Your task to perform on an android device: Empty the shopping cart on bestbuy.com. Search for sony triple a on bestbuy.com, select the first entry, add it to the cart, then select checkout. Image 0: 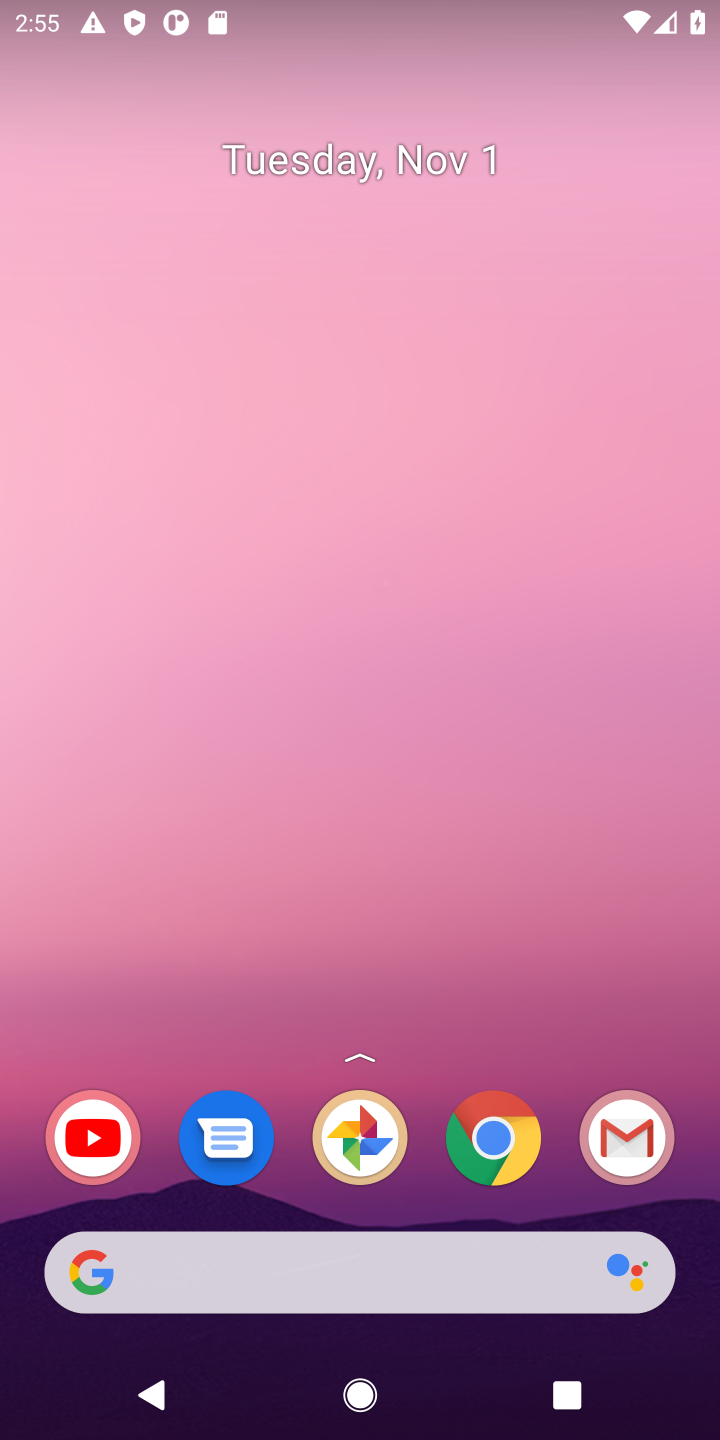
Step 0: click (507, 1150)
Your task to perform on an android device: Empty the shopping cart on bestbuy.com. Search for sony triple a on bestbuy.com, select the first entry, add it to the cart, then select checkout. Image 1: 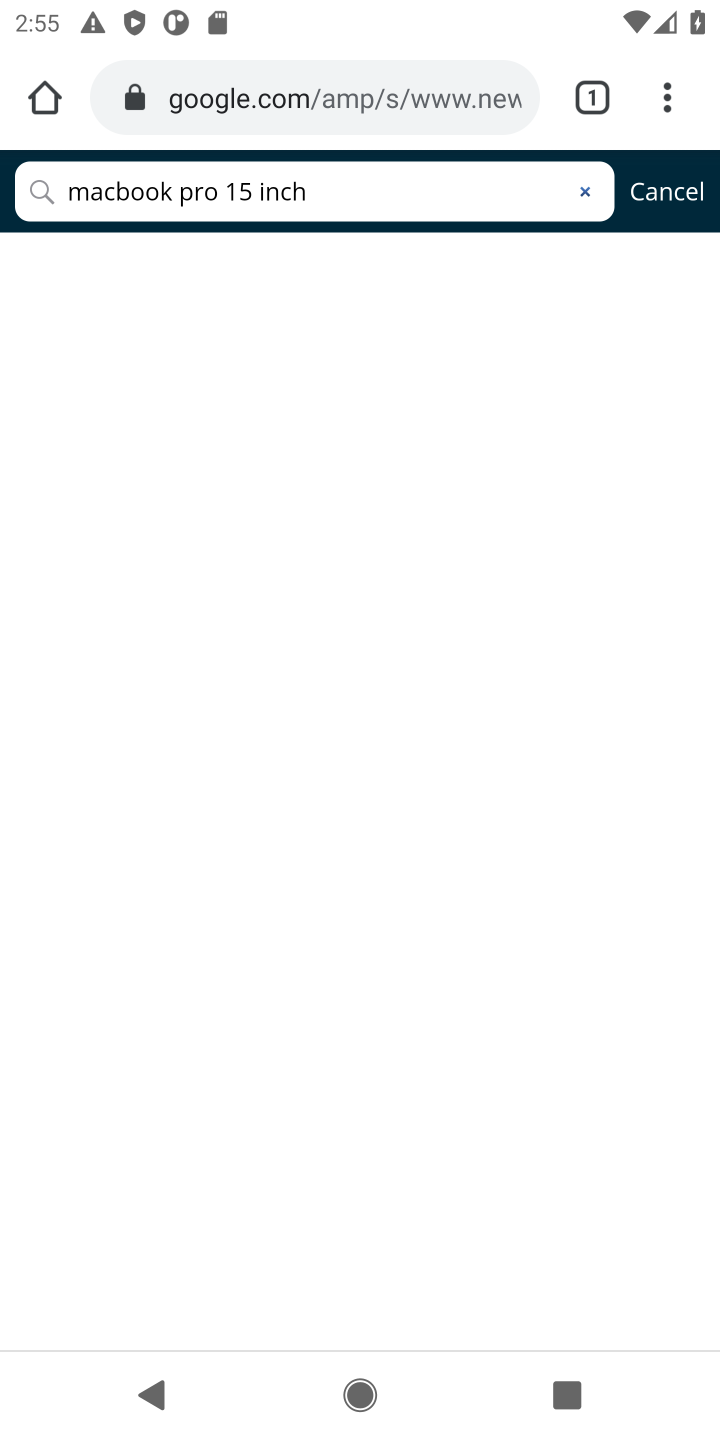
Step 1: click (407, 87)
Your task to perform on an android device: Empty the shopping cart on bestbuy.com. Search for sony triple a on bestbuy.com, select the first entry, add it to the cart, then select checkout. Image 2: 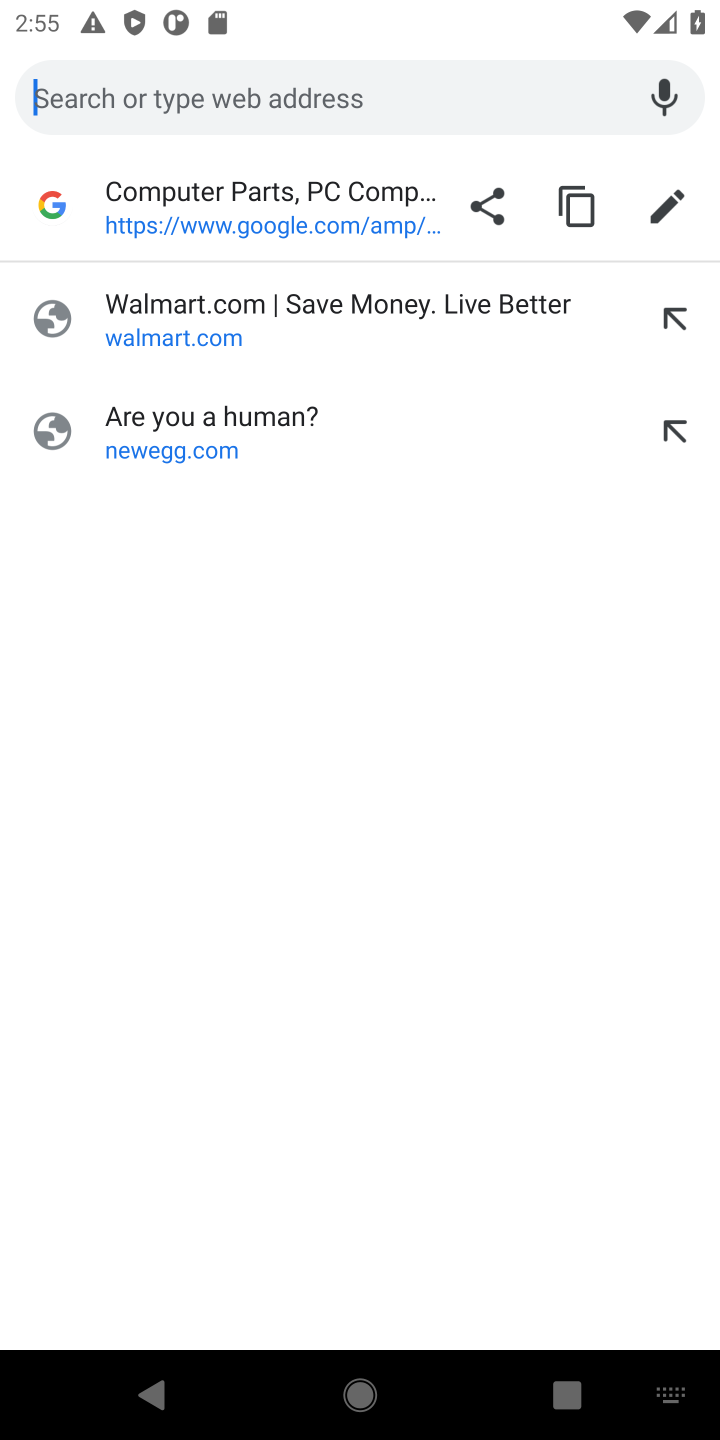
Step 2: type "bestbuy.com"
Your task to perform on an android device: Empty the shopping cart on bestbuy.com. Search for sony triple a on bestbuy.com, select the first entry, add it to the cart, then select checkout. Image 3: 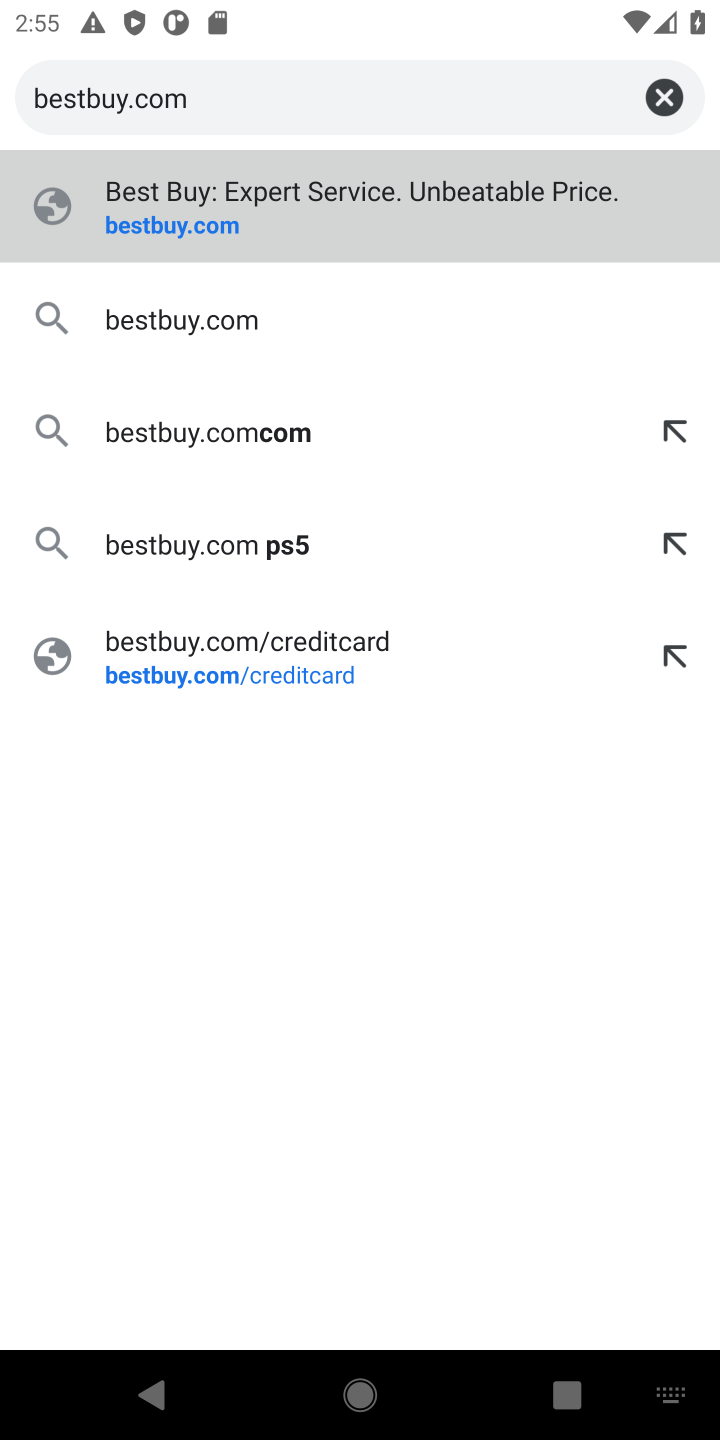
Step 3: click (323, 94)
Your task to perform on an android device: Empty the shopping cart on bestbuy.com. Search for sony triple a on bestbuy.com, select the first entry, add it to the cart, then select checkout. Image 4: 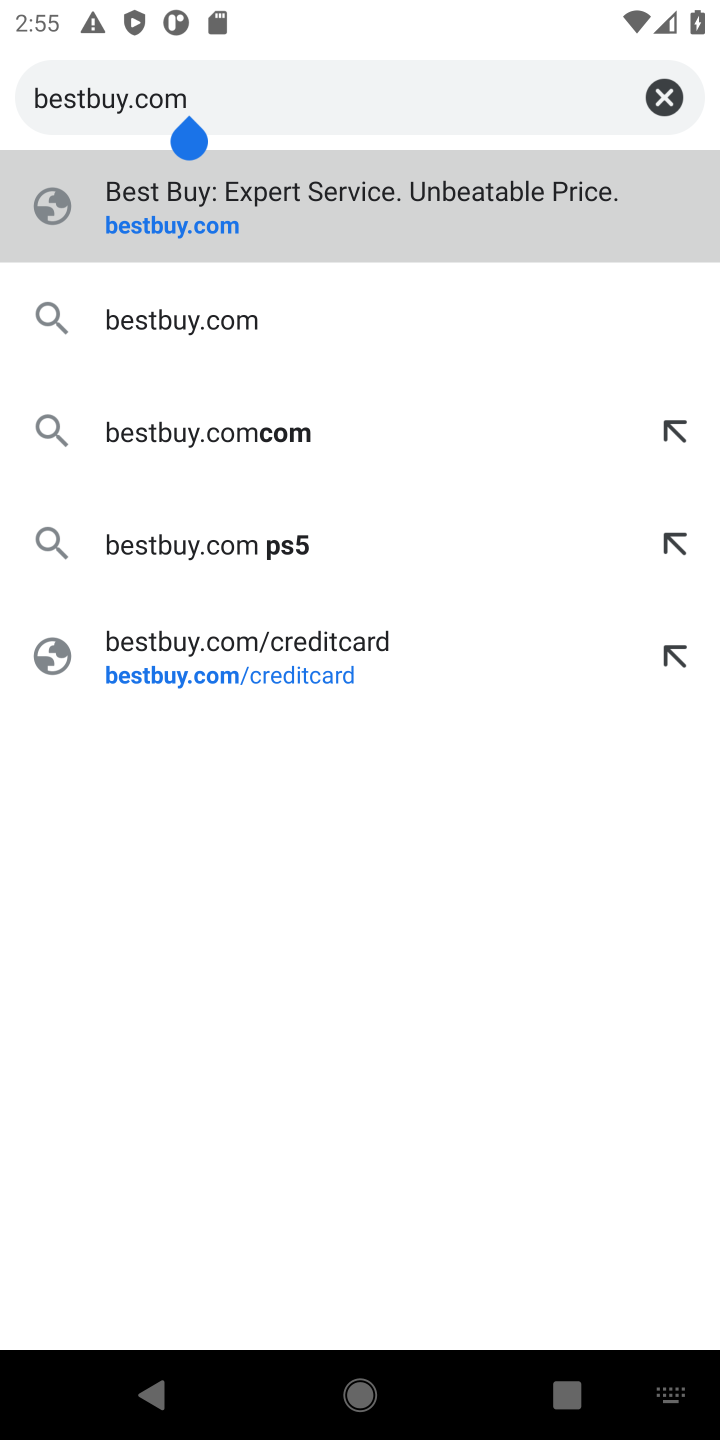
Step 4: click (285, 193)
Your task to perform on an android device: Empty the shopping cart on bestbuy.com. Search for sony triple a on bestbuy.com, select the first entry, add it to the cart, then select checkout. Image 5: 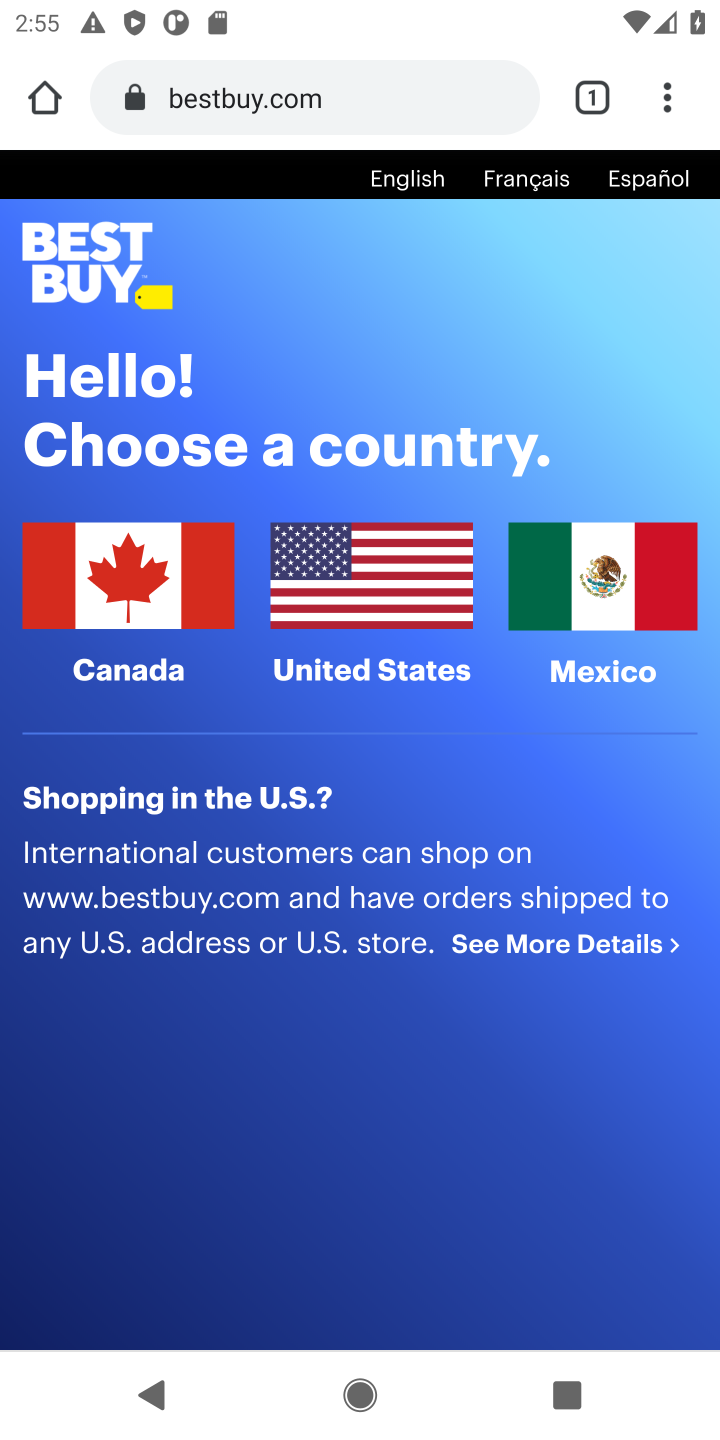
Step 5: click (371, 594)
Your task to perform on an android device: Empty the shopping cart on bestbuy.com. Search for sony triple a on bestbuy.com, select the first entry, add it to the cart, then select checkout. Image 6: 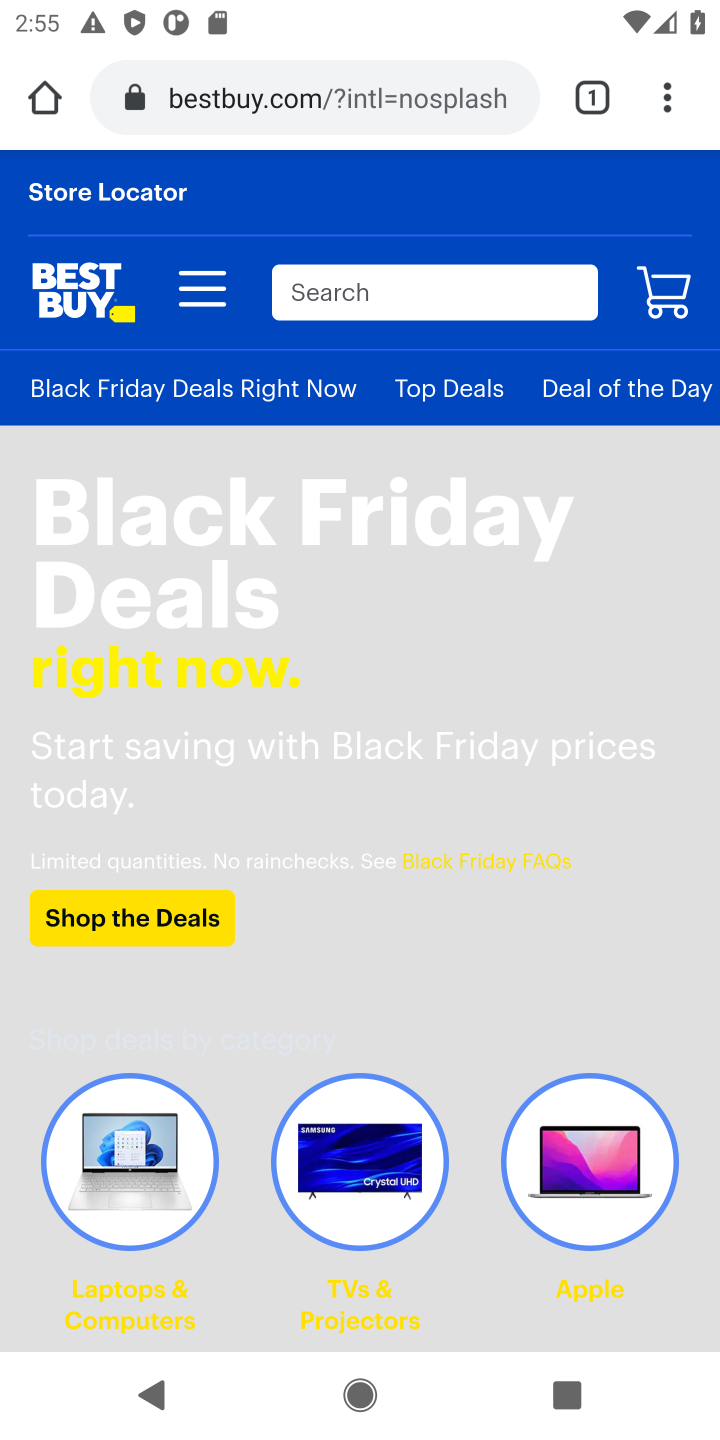
Step 6: click (382, 279)
Your task to perform on an android device: Empty the shopping cart on bestbuy.com. Search for sony triple a on bestbuy.com, select the first entry, add it to the cart, then select checkout. Image 7: 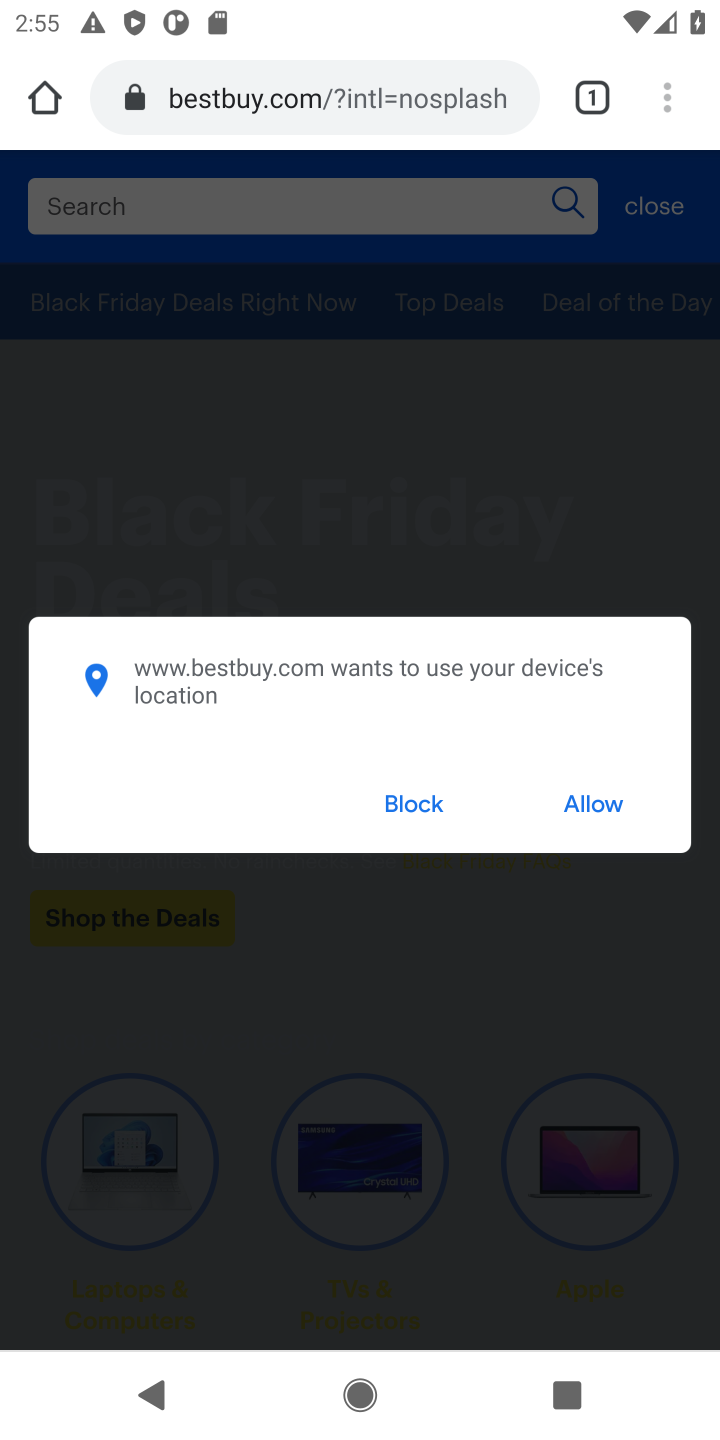
Step 7: click (579, 810)
Your task to perform on an android device: Empty the shopping cart on bestbuy.com. Search for sony triple a on bestbuy.com, select the first entry, add it to the cart, then select checkout. Image 8: 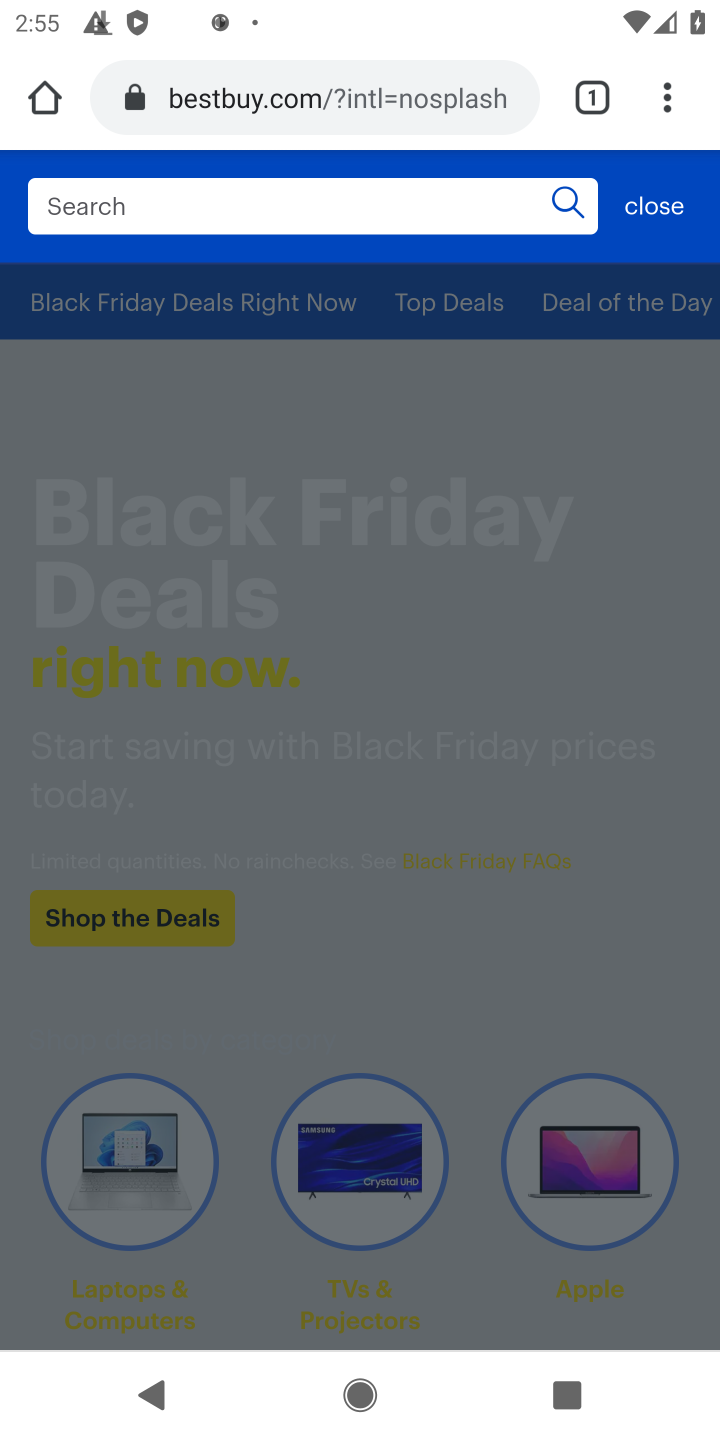
Step 8: click (310, 203)
Your task to perform on an android device: Empty the shopping cart on bestbuy.com. Search for sony triple a on bestbuy.com, select the first entry, add it to the cart, then select checkout. Image 9: 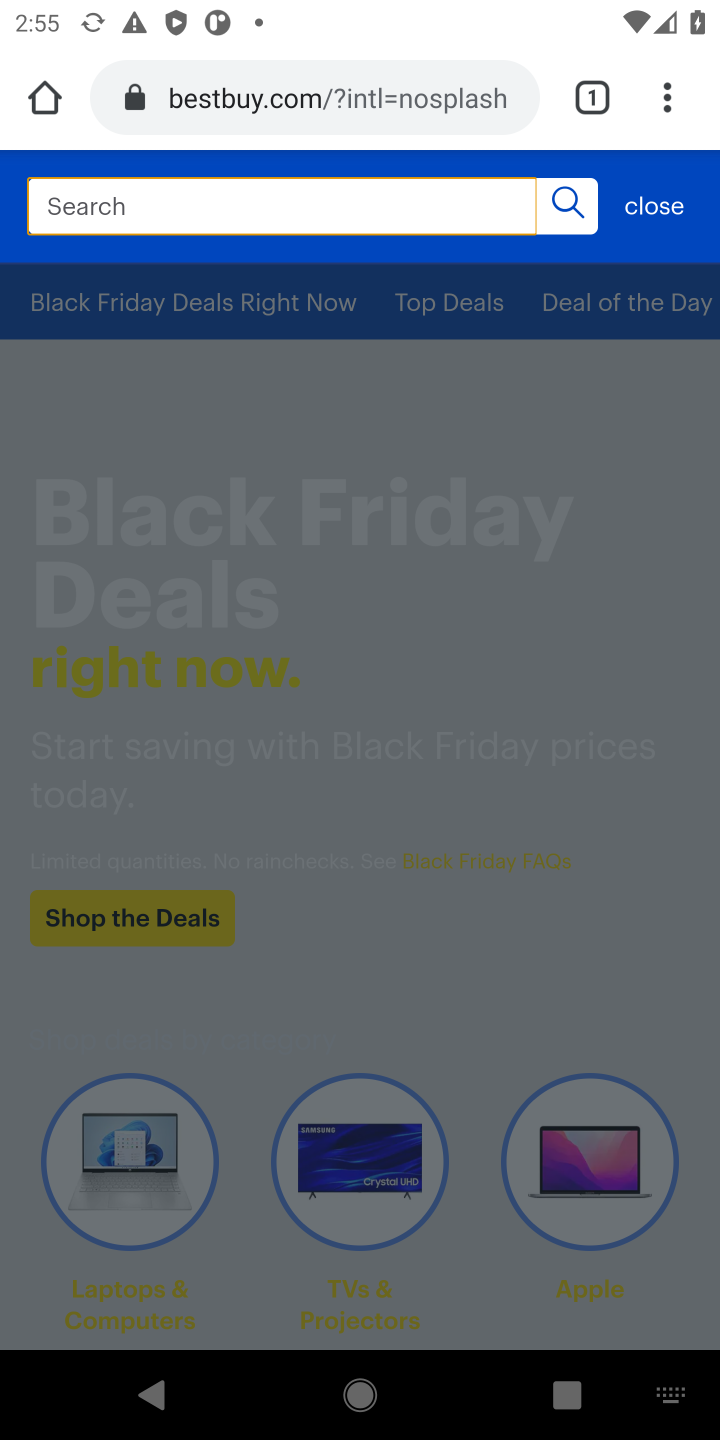
Step 9: type "sony triple a"
Your task to perform on an android device: Empty the shopping cart on bestbuy.com. Search for sony triple a on bestbuy.com, select the first entry, add it to the cart, then select checkout. Image 10: 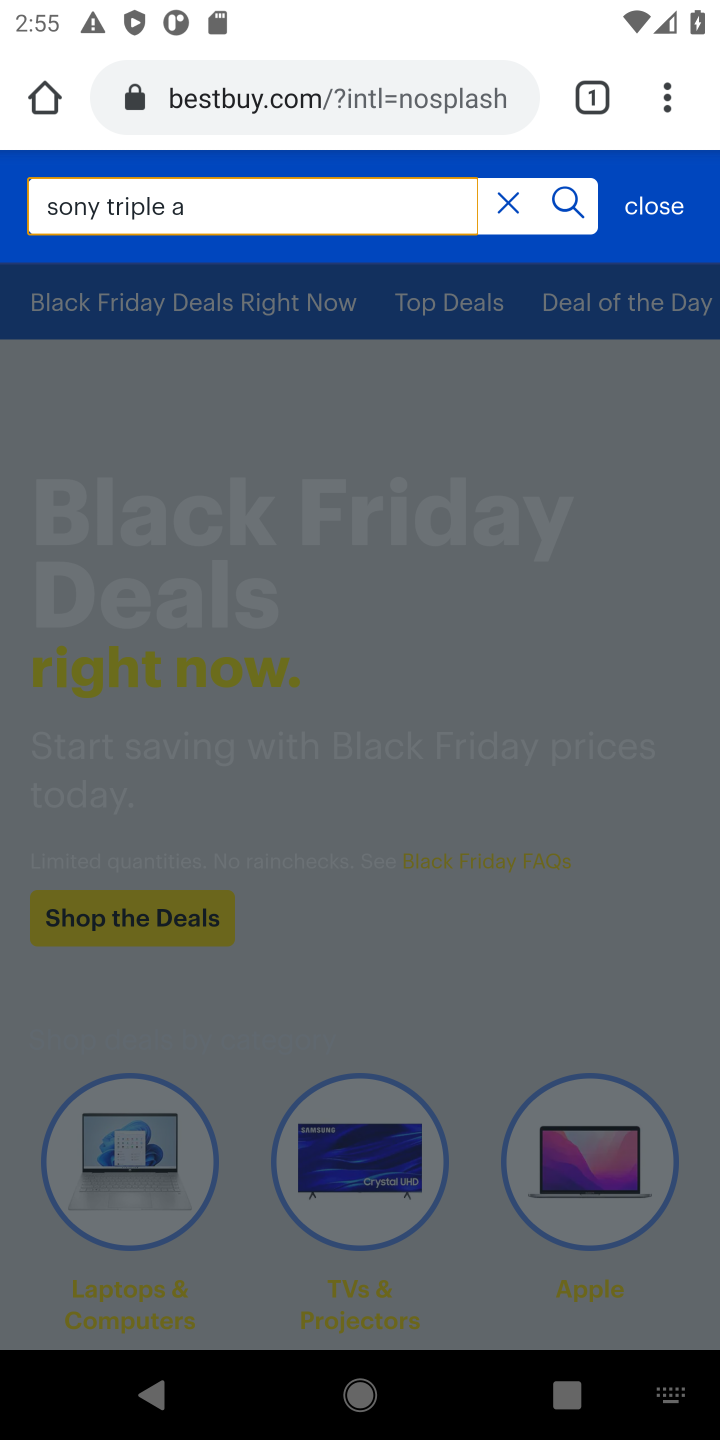
Step 10: click (562, 203)
Your task to perform on an android device: Empty the shopping cart on bestbuy.com. Search for sony triple a on bestbuy.com, select the first entry, add it to the cart, then select checkout. Image 11: 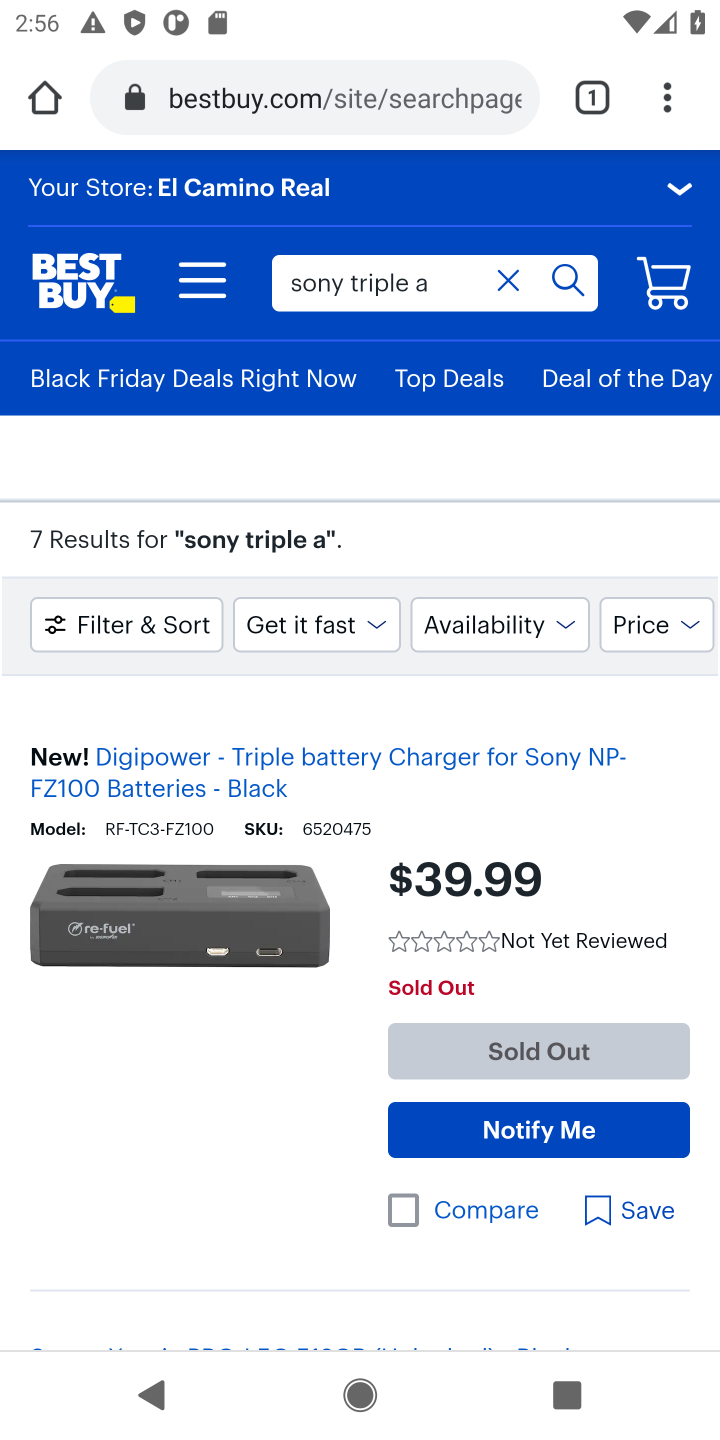
Step 11: task complete